Your task to perform on an android device: Open Google Chrome and click the shortcut for Amazon.com Image 0: 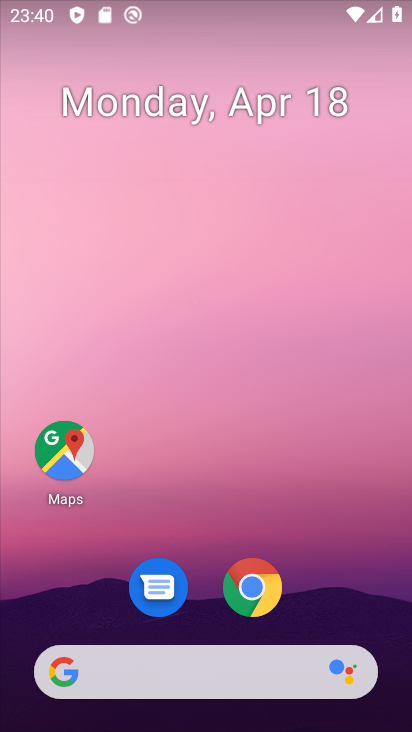
Step 0: drag from (381, 585) to (354, 135)
Your task to perform on an android device: Open Google Chrome and click the shortcut for Amazon.com Image 1: 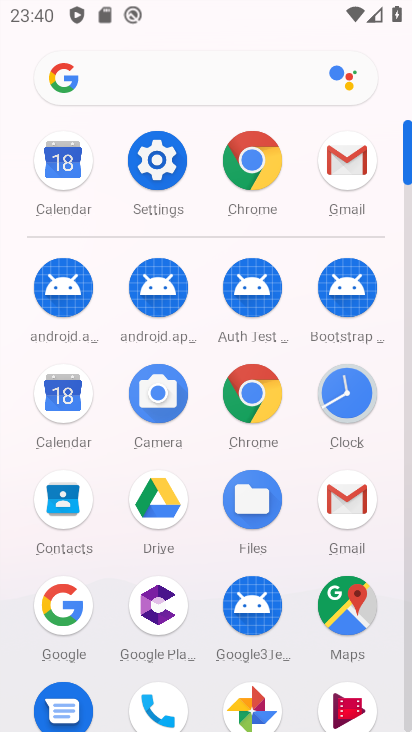
Step 1: click (253, 405)
Your task to perform on an android device: Open Google Chrome and click the shortcut for Amazon.com Image 2: 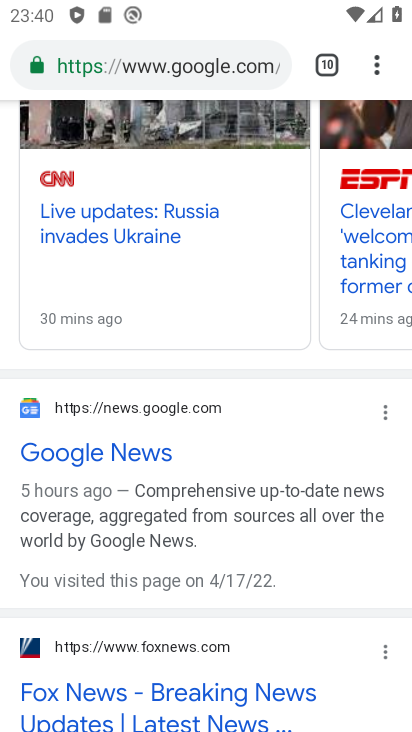
Step 2: click (320, 63)
Your task to perform on an android device: Open Google Chrome and click the shortcut for Amazon.com Image 3: 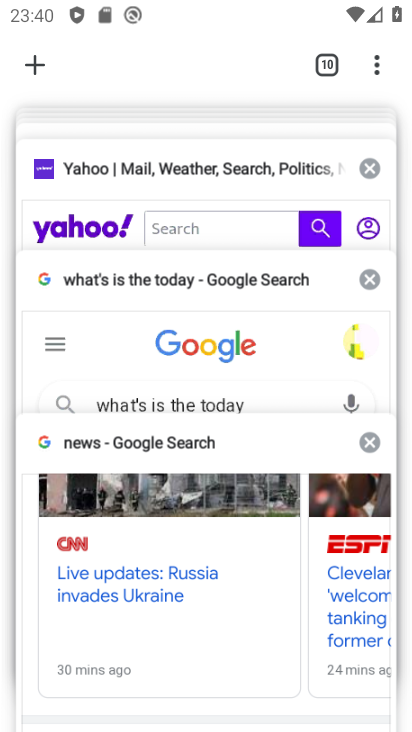
Step 3: click (34, 68)
Your task to perform on an android device: Open Google Chrome and click the shortcut for Amazon.com Image 4: 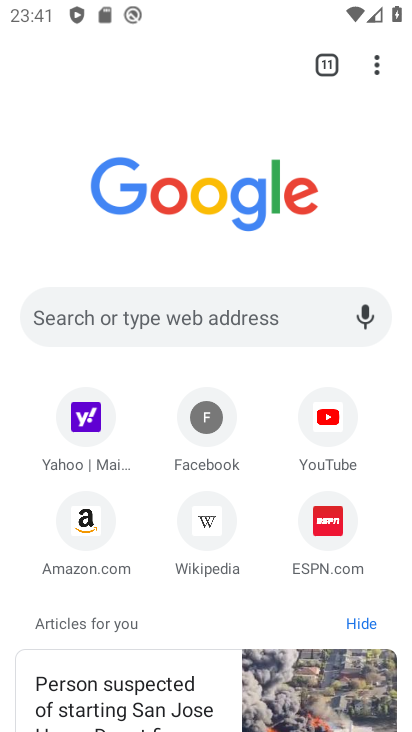
Step 4: click (88, 534)
Your task to perform on an android device: Open Google Chrome and click the shortcut for Amazon.com Image 5: 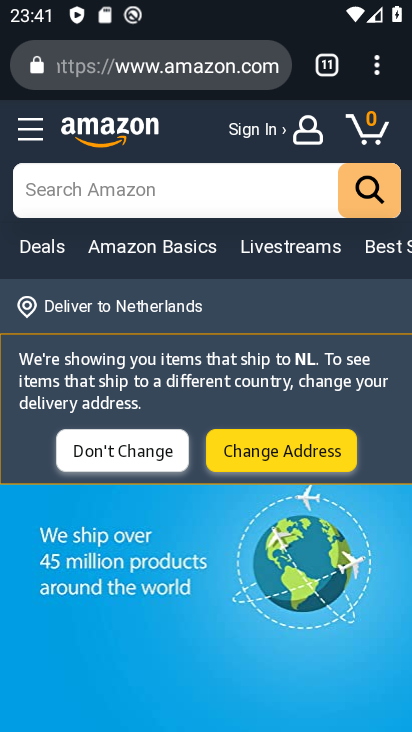
Step 5: task complete